Your task to perform on an android device: When is my next appointment? Image 0: 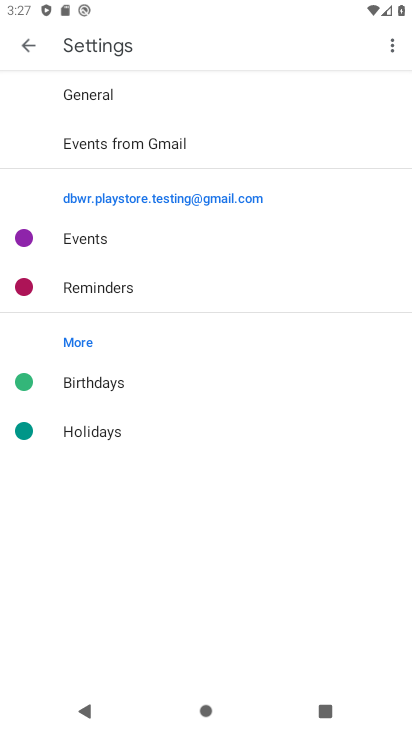
Step 0: press home button
Your task to perform on an android device: When is my next appointment? Image 1: 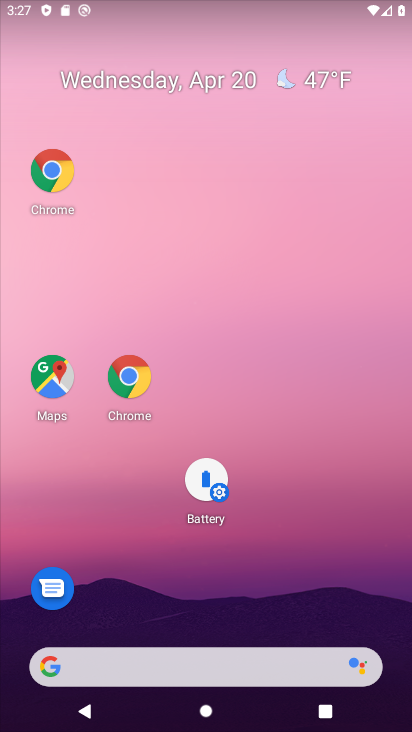
Step 1: drag from (295, 578) to (296, 189)
Your task to perform on an android device: When is my next appointment? Image 2: 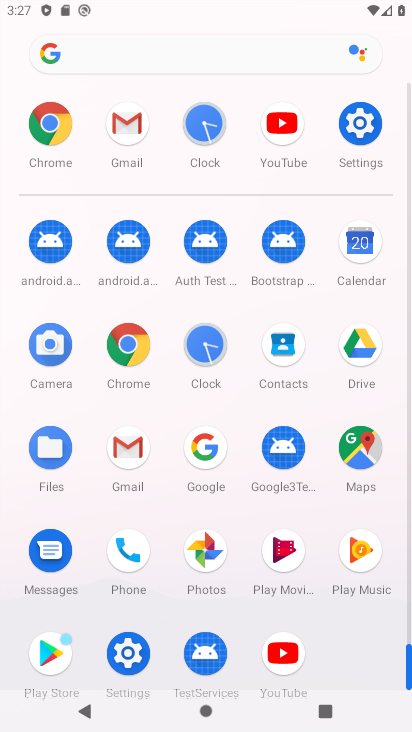
Step 2: click (365, 247)
Your task to perform on an android device: When is my next appointment? Image 3: 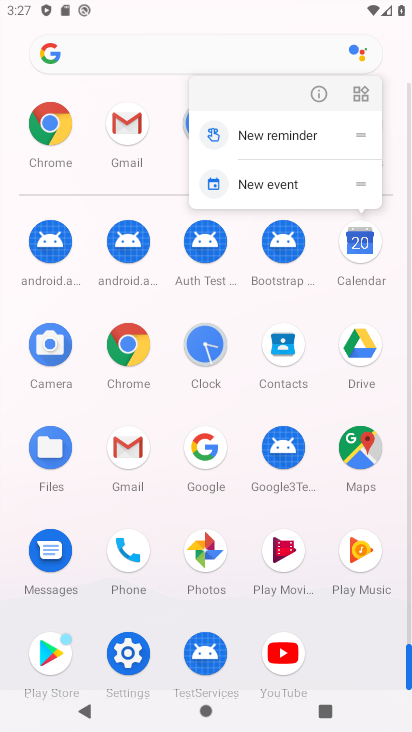
Step 3: click (351, 257)
Your task to perform on an android device: When is my next appointment? Image 4: 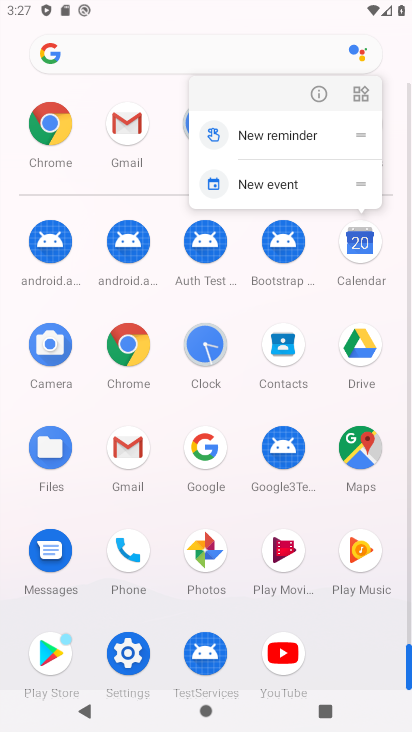
Step 4: click (351, 257)
Your task to perform on an android device: When is my next appointment? Image 5: 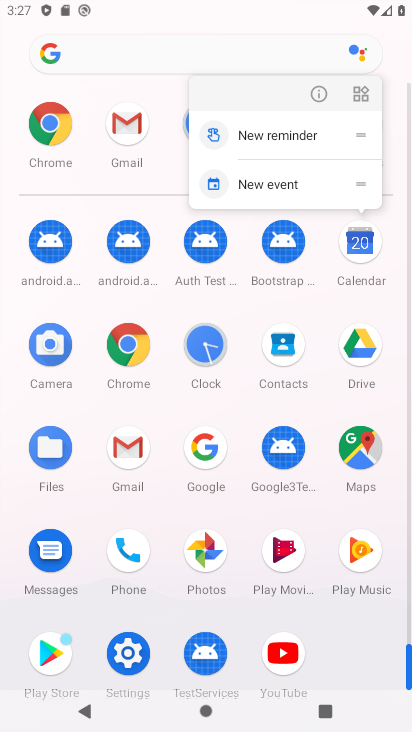
Step 5: click (351, 257)
Your task to perform on an android device: When is my next appointment? Image 6: 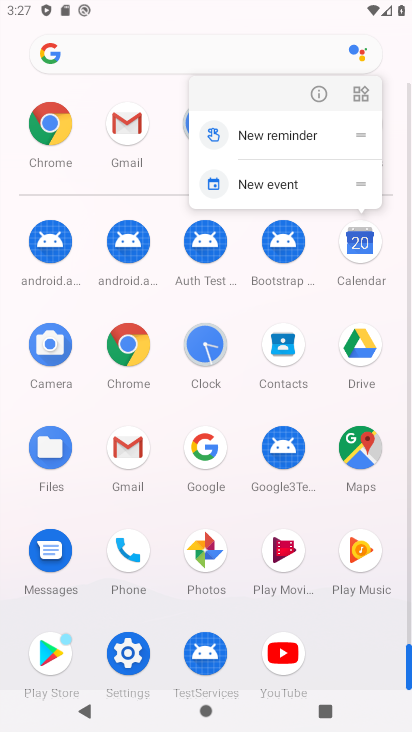
Step 6: click (366, 245)
Your task to perform on an android device: When is my next appointment? Image 7: 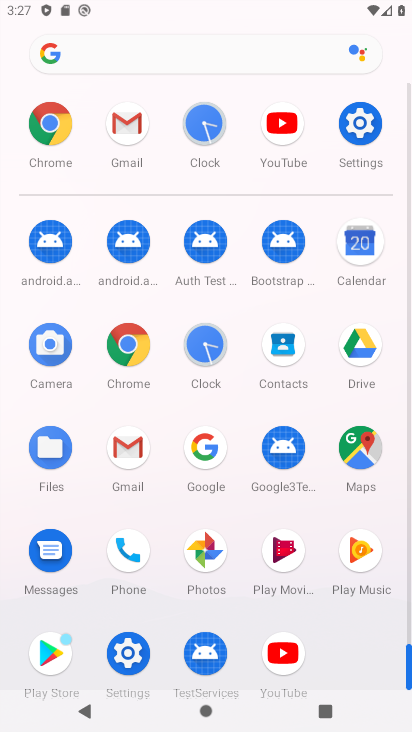
Step 7: click (366, 245)
Your task to perform on an android device: When is my next appointment? Image 8: 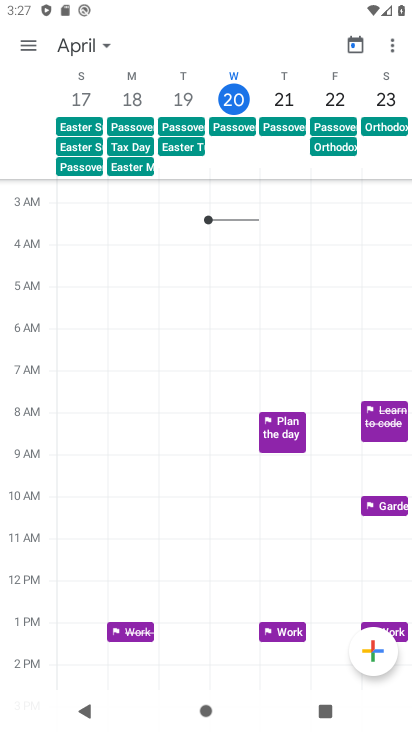
Step 8: click (107, 44)
Your task to perform on an android device: When is my next appointment? Image 9: 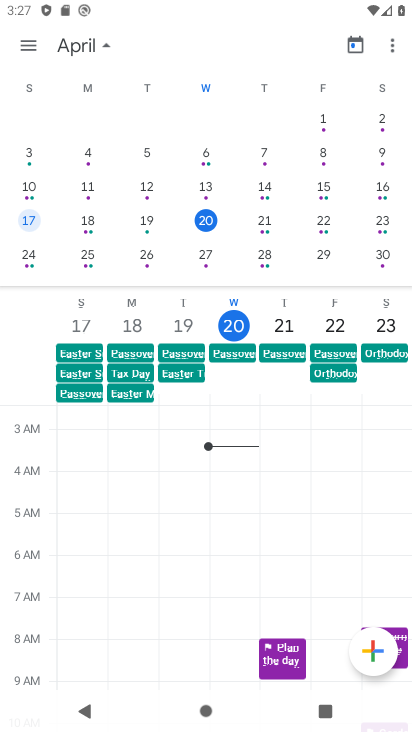
Step 9: click (266, 248)
Your task to perform on an android device: When is my next appointment? Image 10: 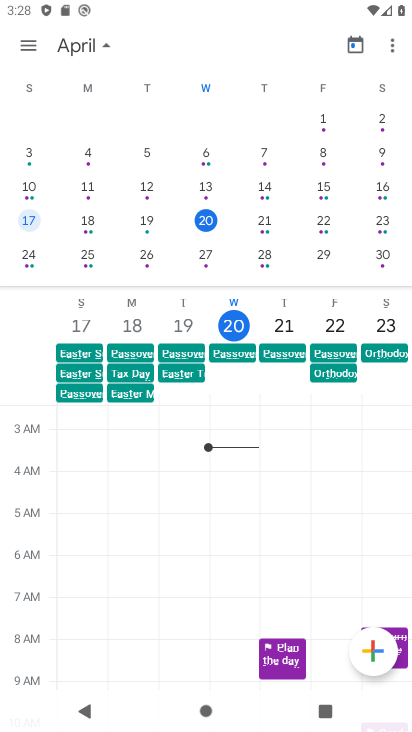
Step 10: click (32, 47)
Your task to perform on an android device: When is my next appointment? Image 11: 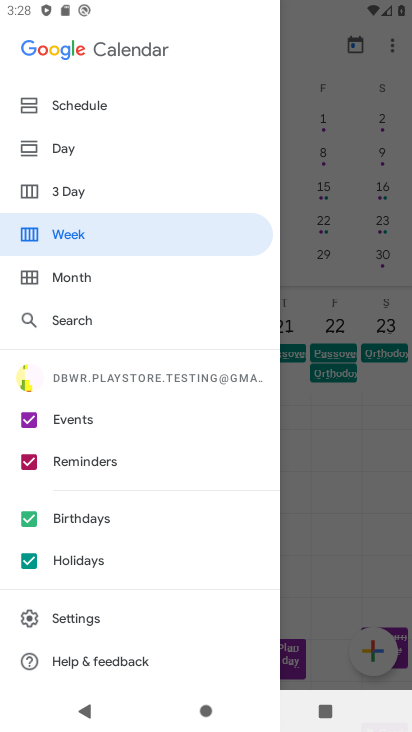
Step 11: drag from (132, 564) to (119, 375)
Your task to perform on an android device: When is my next appointment? Image 12: 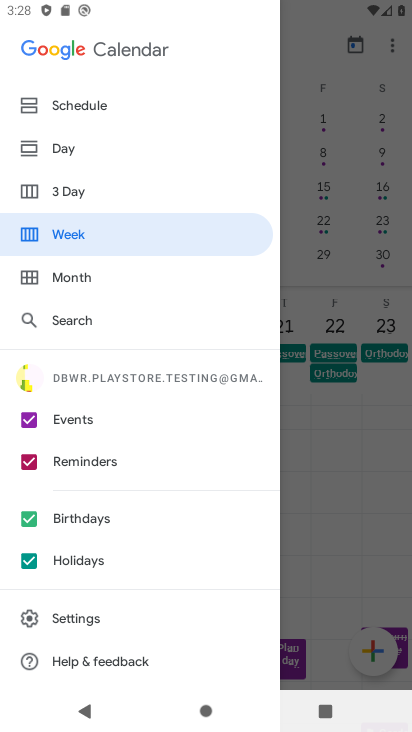
Step 12: click (388, 604)
Your task to perform on an android device: When is my next appointment? Image 13: 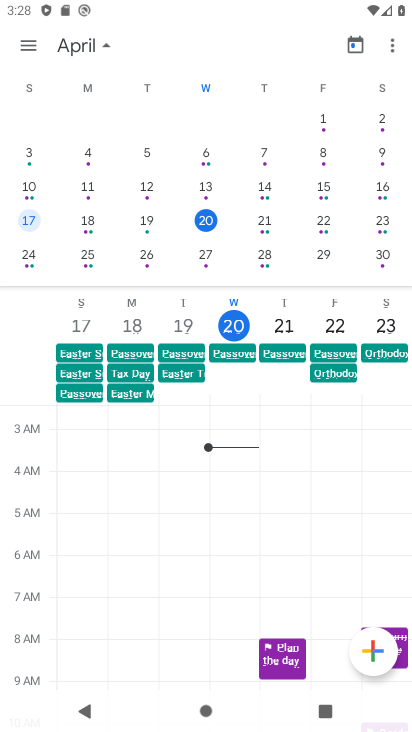
Step 13: task complete